Your task to perform on an android device: add a contact Image 0: 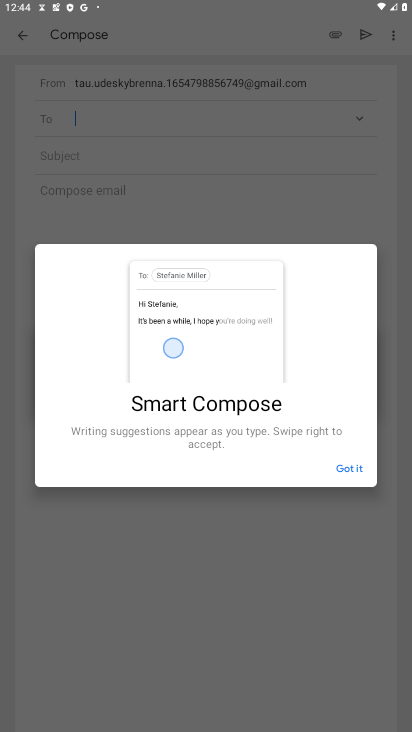
Step 0: press home button
Your task to perform on an android device: add a contact Image 1: 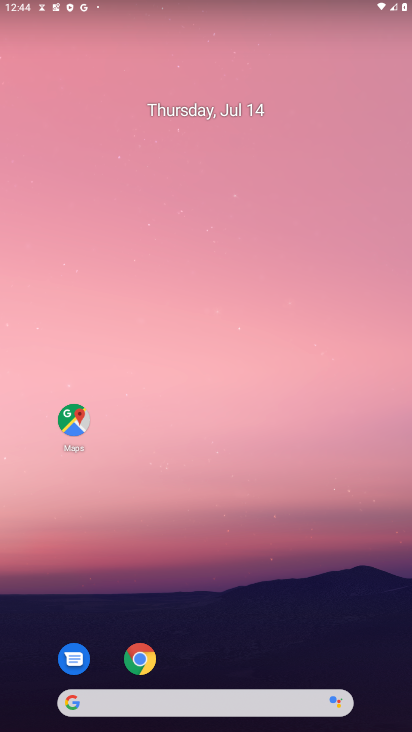
Step 1: task complete